Your task to perform on an android device: turn notification dots on Image 0: 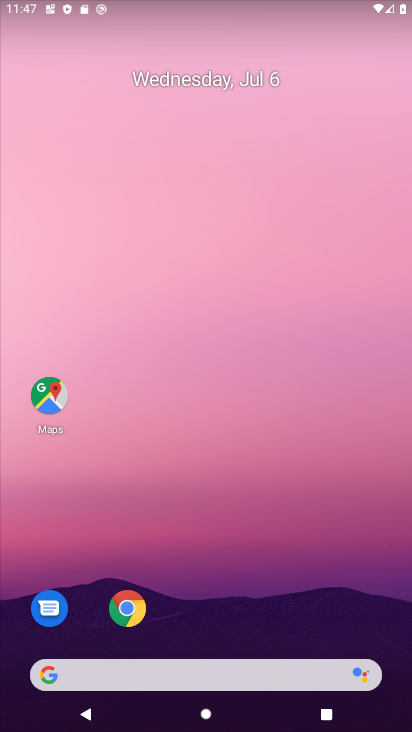
Step 0: drag from (212, 664) to (182, 210)
Your task to perform on an android device: turn notification dots on Image 1: 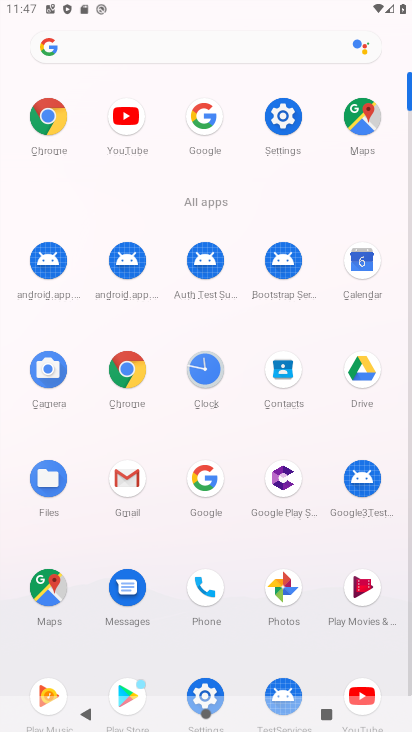
Step 1: click (279, 117)
Your task to perform on an android device: turn notification dots on Image 2: 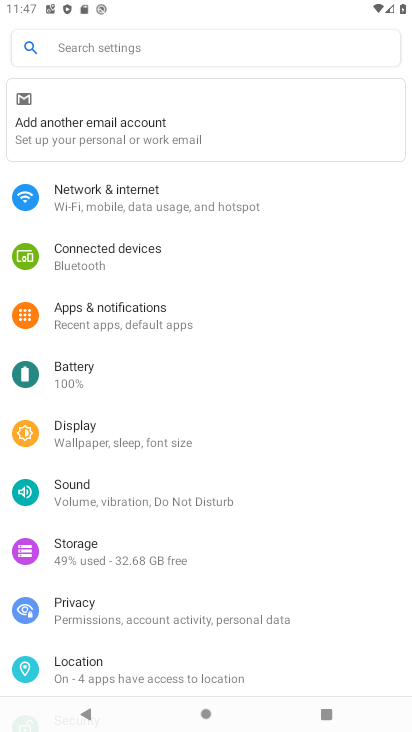
Step 2: click (79, 328)
Your task to perform on an android device: turn notification dots on Image 3: 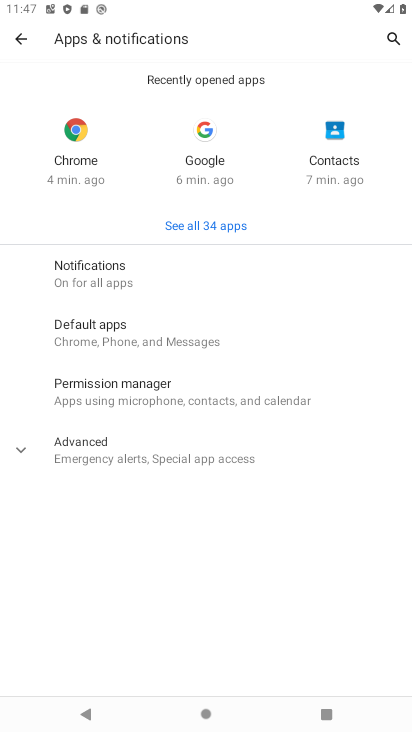
Step 3: click (117, 432)
Your task to perform on an android device: turn notification dots on Image 4: 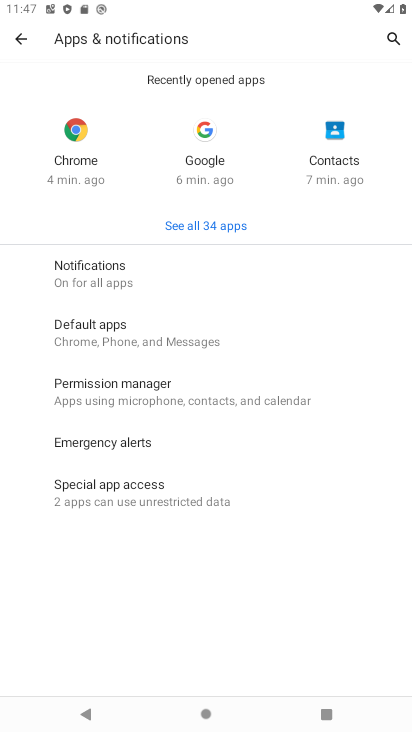
Step 4: click (78, 279)
Your task to perform on an android device: turn notification dots on Image 5: 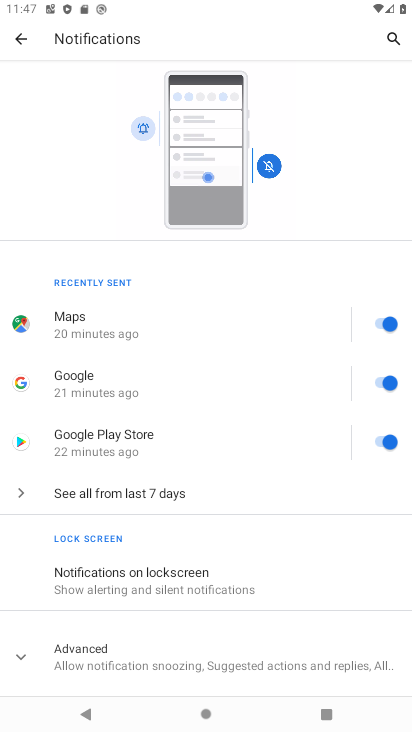
Step 5: click (88, 657)
Your task to perform on an android device: turn notification dots on Image 6: 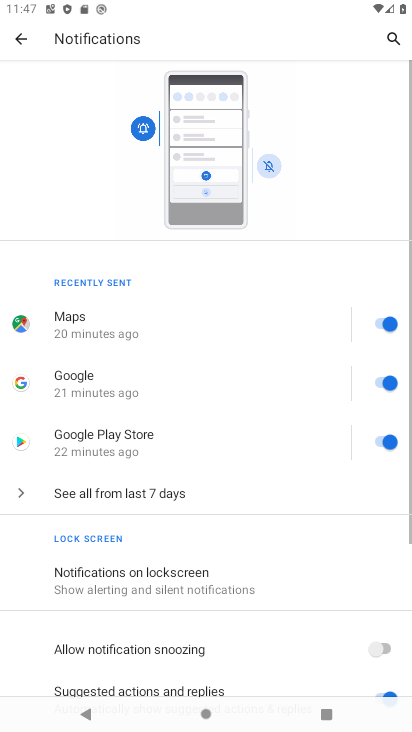
Step 6: drag from (182, 671) to (192, 241)
Your task to perform on an android device: turn notification dots on Image 7: 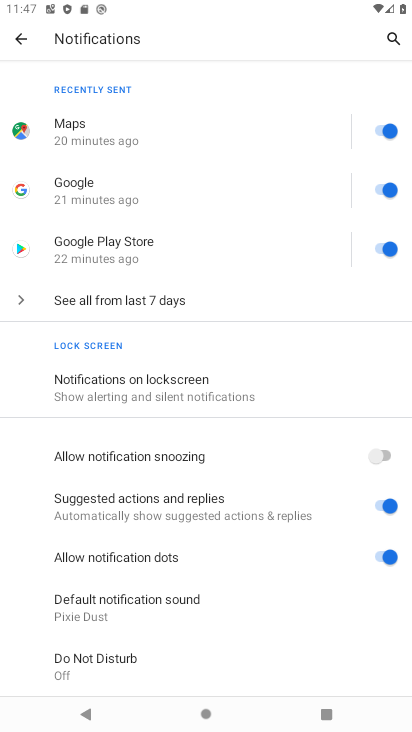
Step 7: click (381, 553)
Your task to perform on an android device: turn notification dots on Image 8: 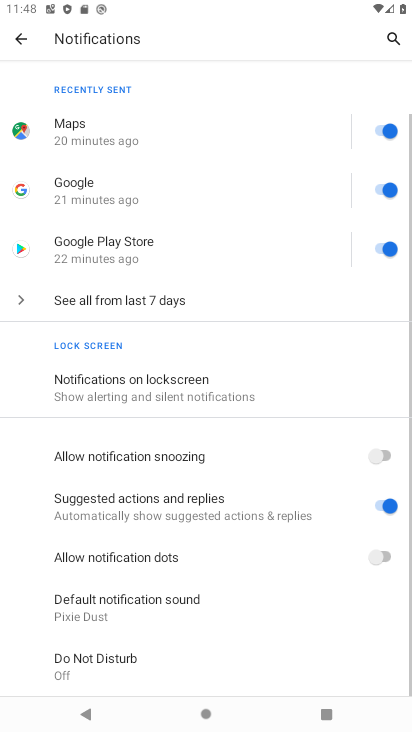
Step 8: click (382, 551)
Your task to perform on an android device: turn notification dots on Image 9: 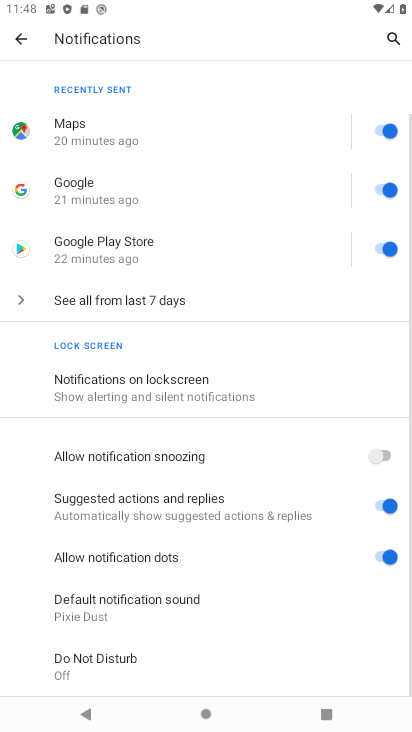
Step 9: task complete